Your task to perform on an android device: Open calendar and show me the second week of next month Image 0: 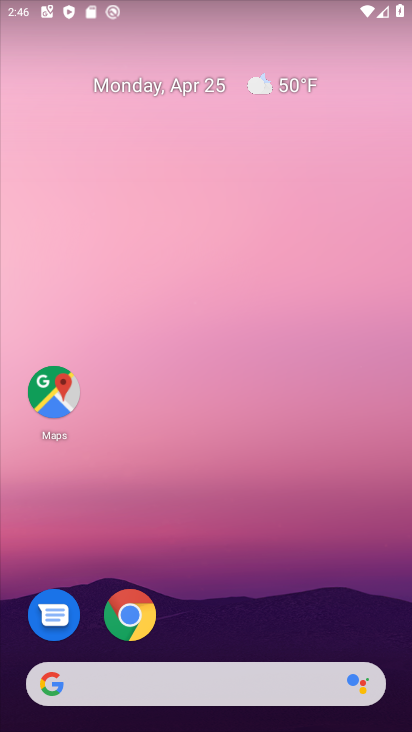
Step 0: drag from (221, 724) to (216, 171)
Your task to perform on an android device: Open calendar and show me the second week of next month Image 1: 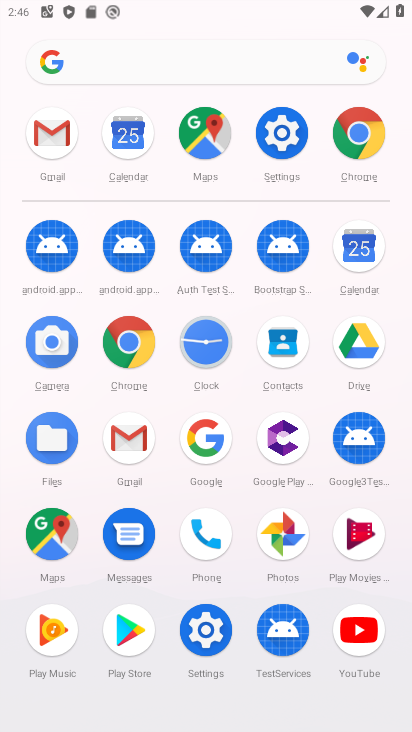
Step 1: click (360, 247)
Your task to perform on an android device: Open calendar and show me the second week of next month Image 2: 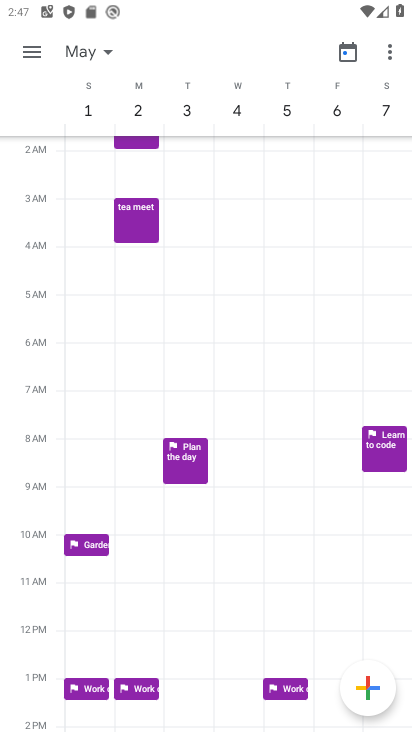
Step 2: click (81, 43)
Your task to perform on an android device: Open calendar and show me the second week of next month Image 3: 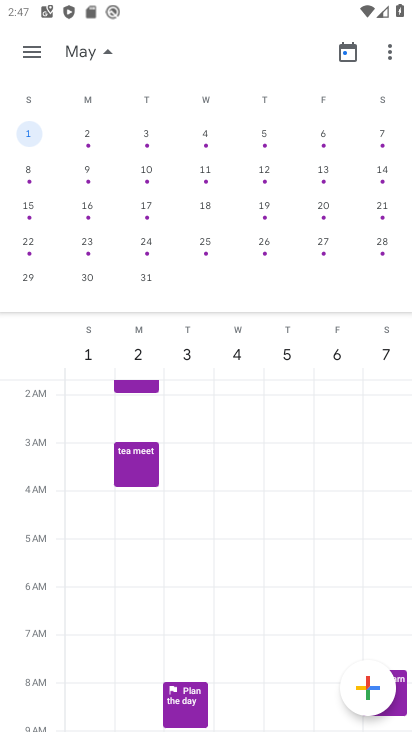
Step 3: click (85, 167)
Your task to perform on an android device: Open calendar and show me the second week of next month Image 4: 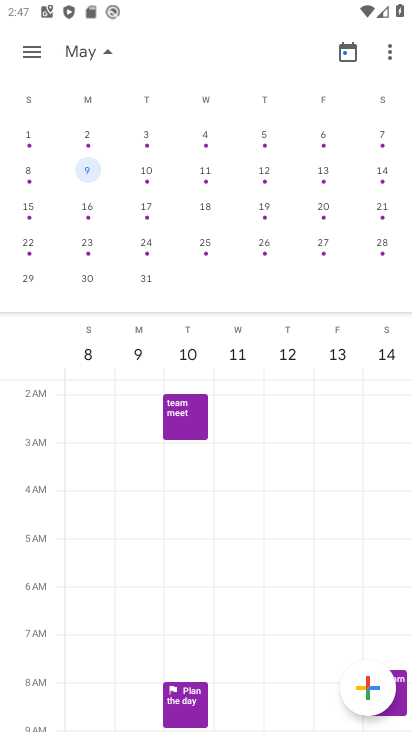
Step 4: task complete